Your task to perform on an android device: delete a single message in the gmail app Image 0: 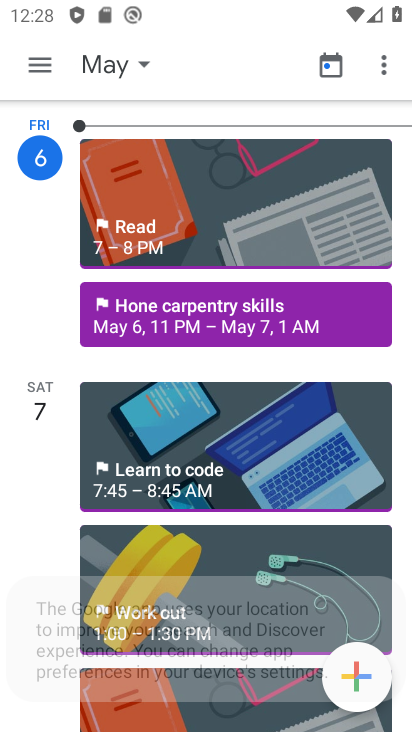
Step 0: drag from (195, 568) to (254, 327)
Your task to perform on an android device: delete a single message in the gmail app Image 1: 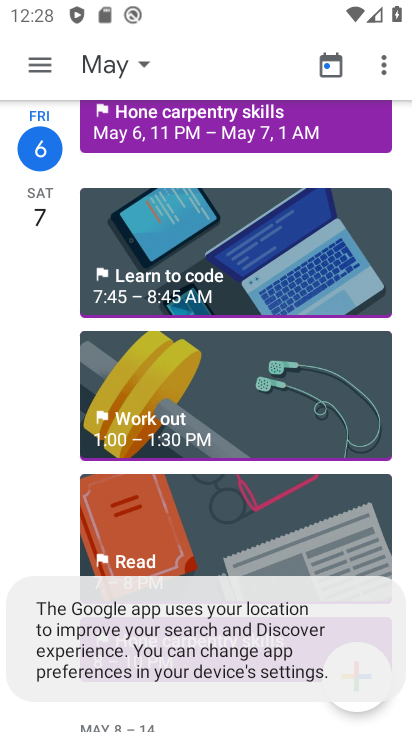
Step 1: press home button
Your task to perform on an android device: delete a single message in the gmail app Image 2: 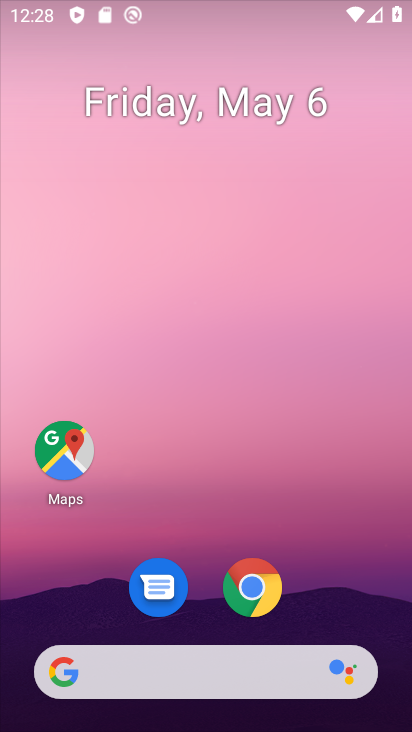
Step 2: drag from (225, 636) to (316, 120)
Your task to perform on an android device: delete a single message in the gmail app Image 3: 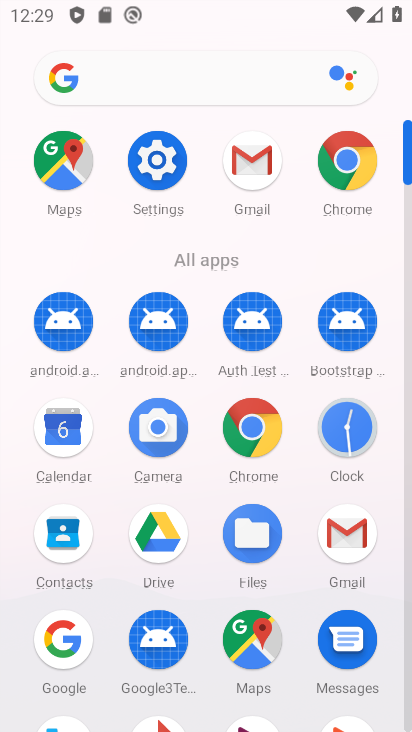
Step 3: click (332, 537)
Your task to perform on an android device: delete a single message in the gmail app Image 4: 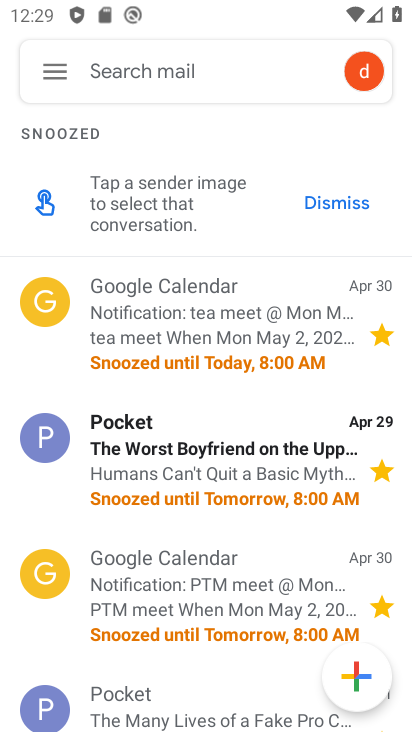
Step 4: click (68, 76)
Your task to perform on an android device: delete a single message in the gmail app Image 5: 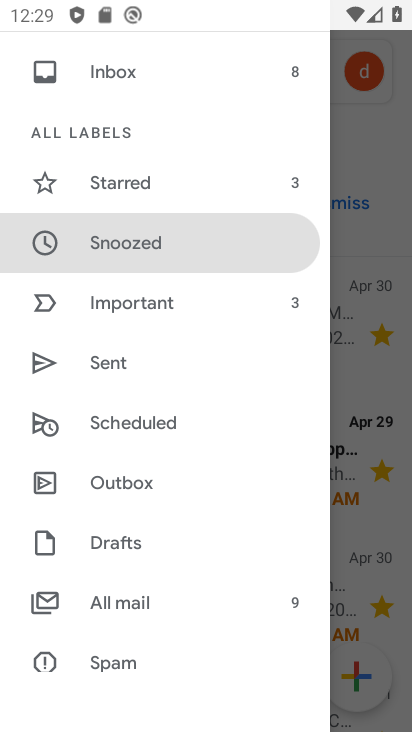
Step 5: click (89, 609)
Your task to perform on an android device: delete a single message in the gmail app Image 6: 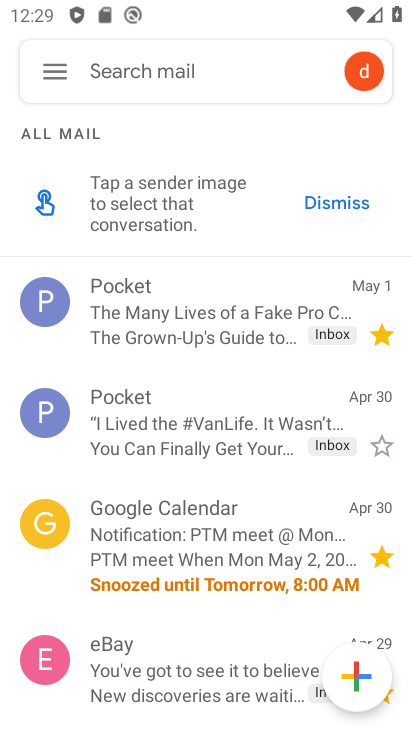
Step 6: click (210, 309)
Your task to perform on an android device: delete a single message in the gmail app Image 7: 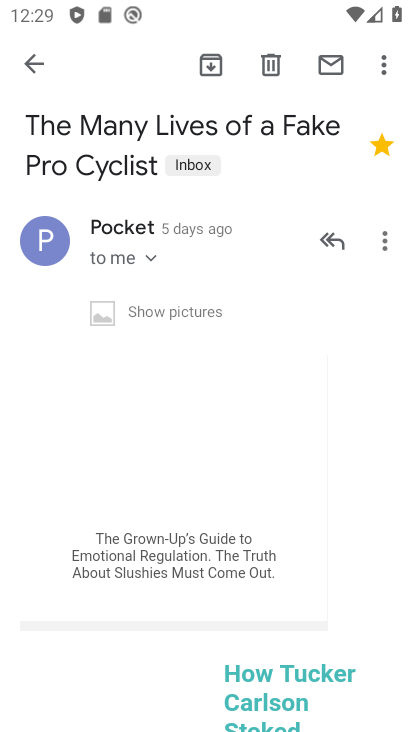
Step 7: click (263, 54)
Your task to perform on an android device: delete a single message in the gmail app Image 8: 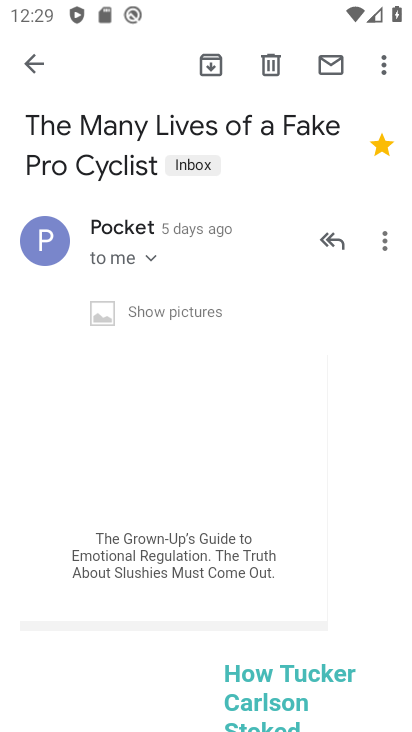
Step 8: click (272, 71)
Your task to perform on an android device: delete a single message in the gmail app Image 9: 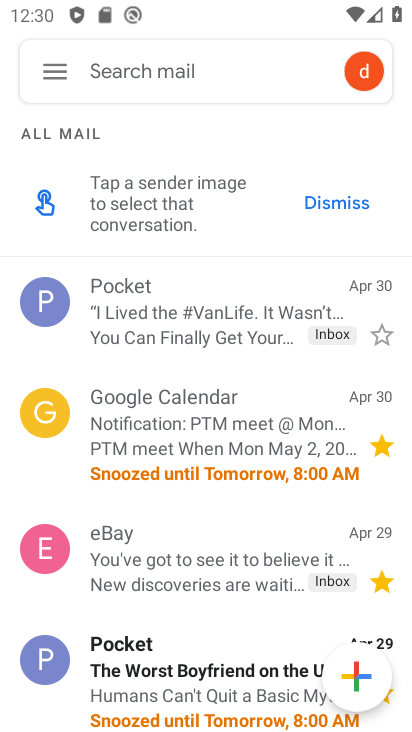
Step 9: task complete